Your task to perform on an android device: turn off location Image 0: 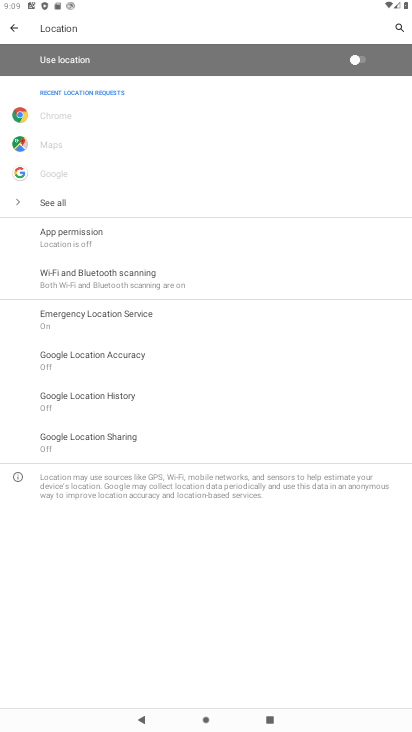
Step 0: task complete